Your task to perform on an android device: turn on notifications settings in the gmail app Image 0: 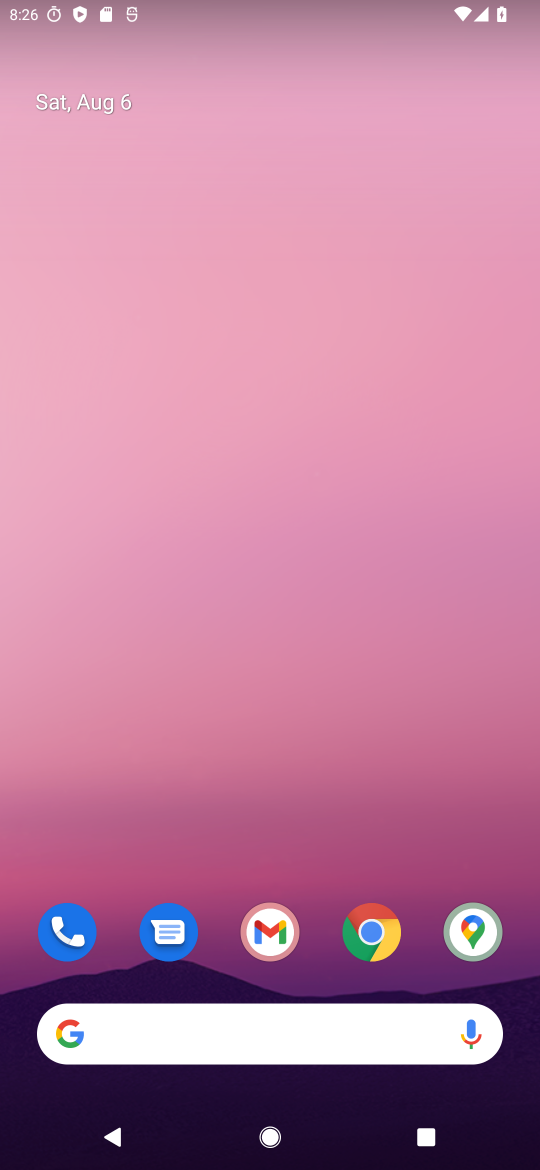
Step 0: press home button
Your task to perform on an android device: turn on notifications settings in the gmail app Image 1: 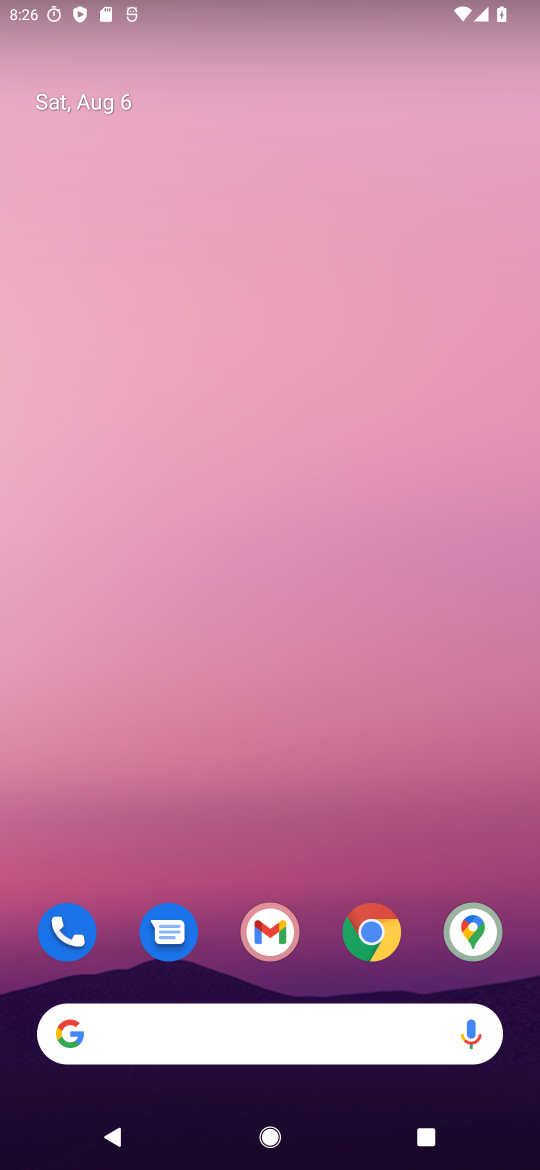
Step 1: click (266, 922)
Your task to perform on an android device: turn on notifications settings in the gmail app Image 2: 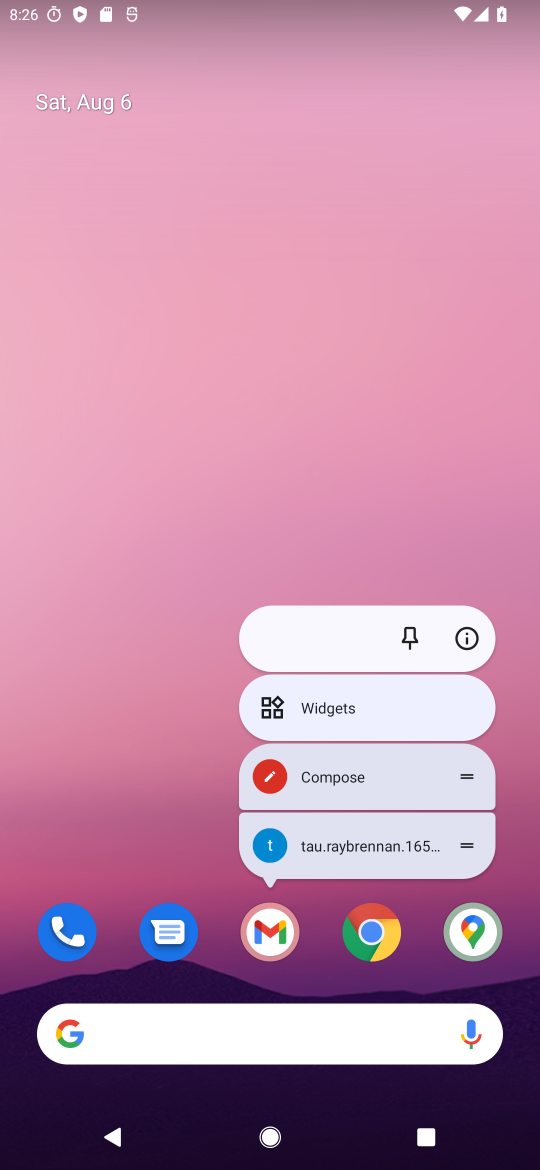
Step 2: click (279, 938)
Your task to perform on an android device: turn on notifications settings in the gmail app Image 3: 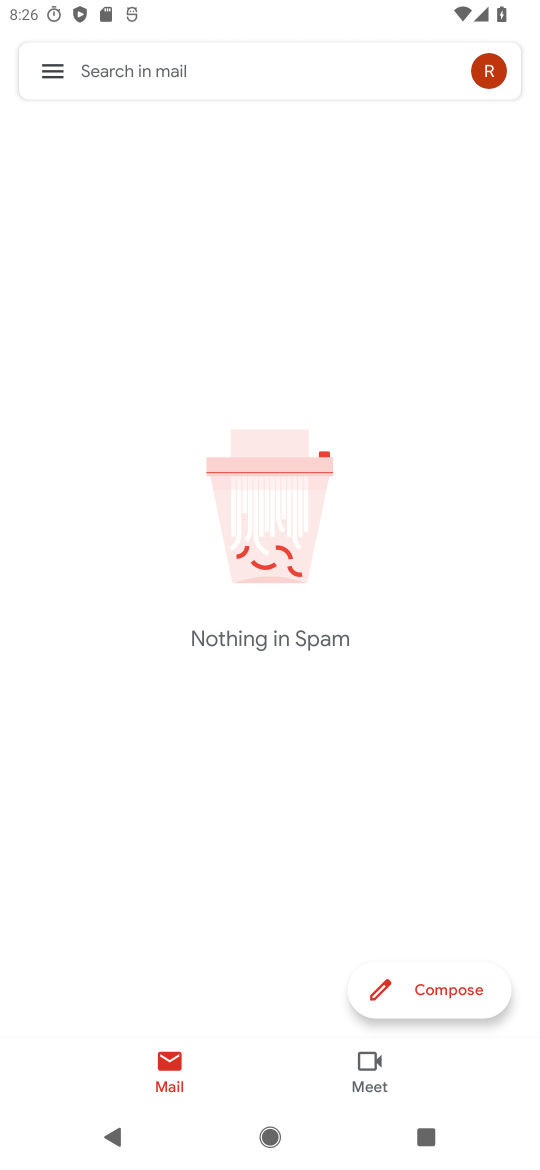
Step 3: click (51, 56)
Your task to perform on an android device: turn on notifications settings in the gmail app Image 4: 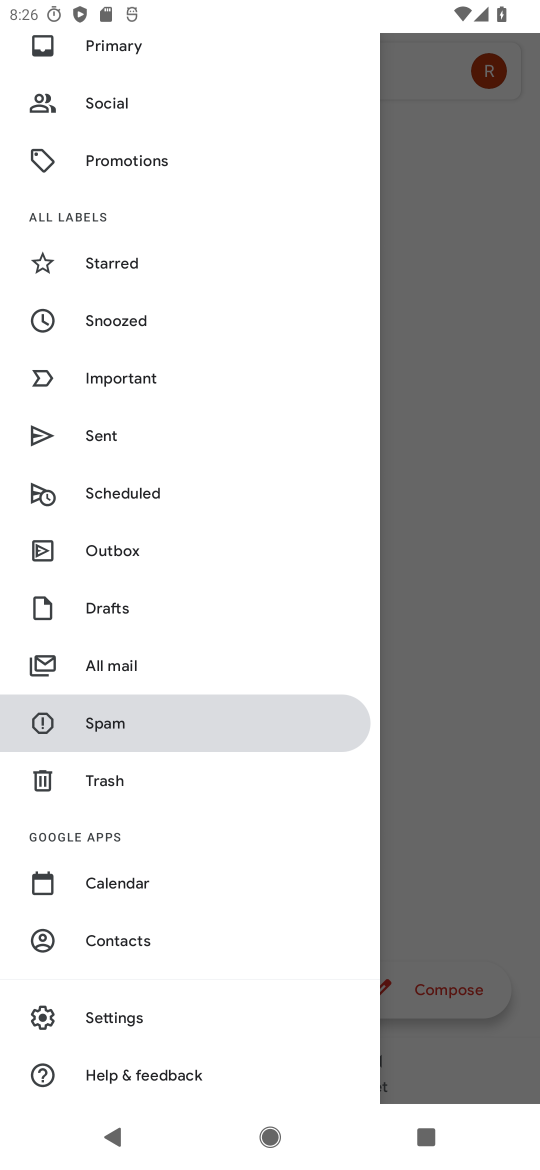
Step 4: drag from (215, 1014) to (354, 216)
Your task to perform on an android device: turn on notifications settings in the gmail app Image 5: 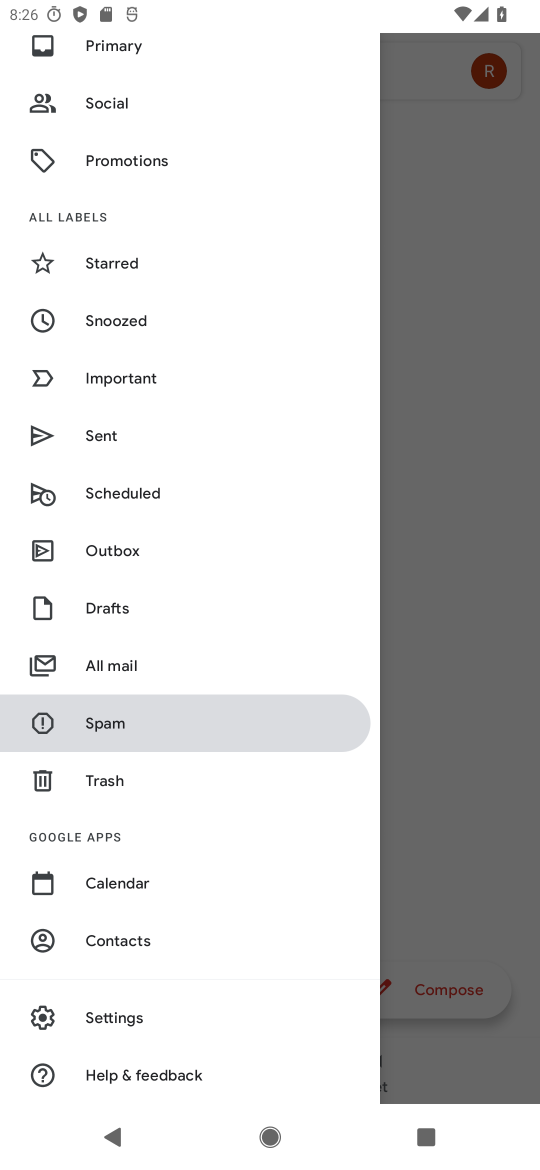
Step 5: click (126, 1018)
Your task to perform on an android device: turn on notifications settings in the gmail app Image 6: 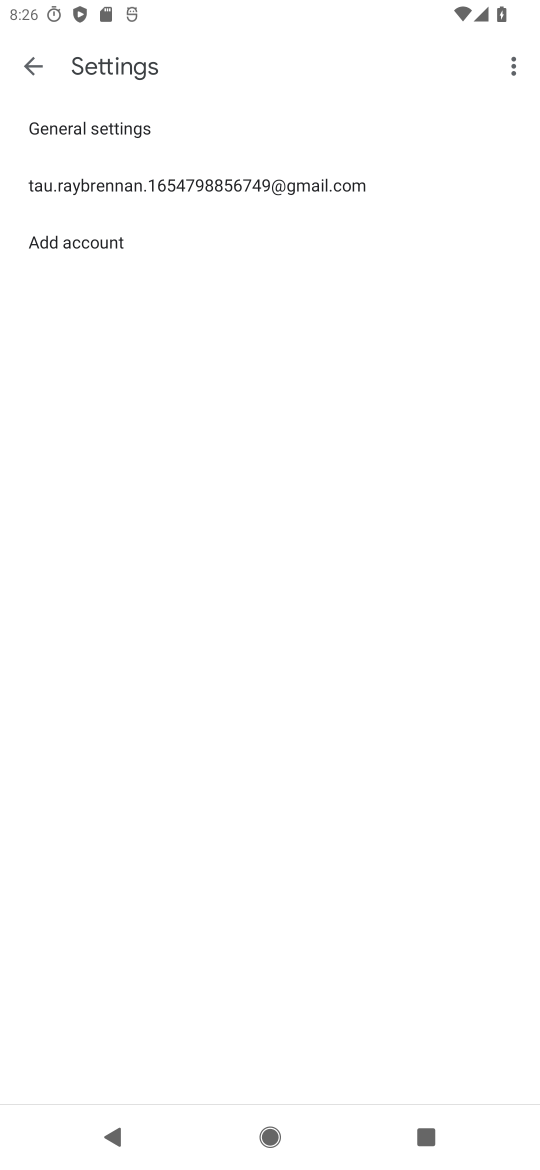
Step 6: click (340, 181)
Your task to perform on an android device: turn on notifications settings in the gmail app Image 7: 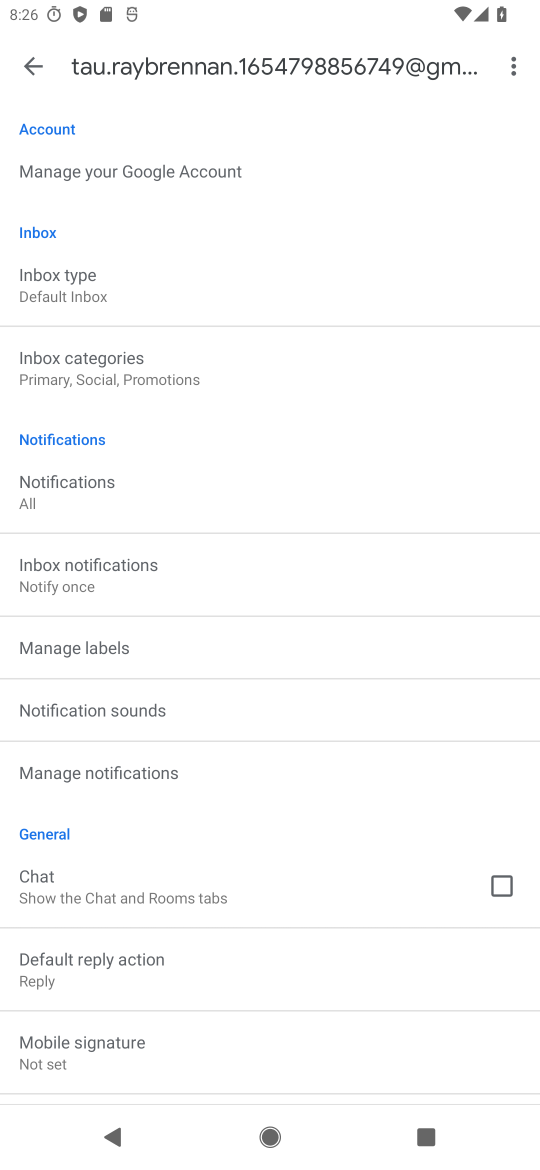
Step 7: click (108, 486)
Your task to perform on an android device: turn on notifications settings in the gmail app Image 8: 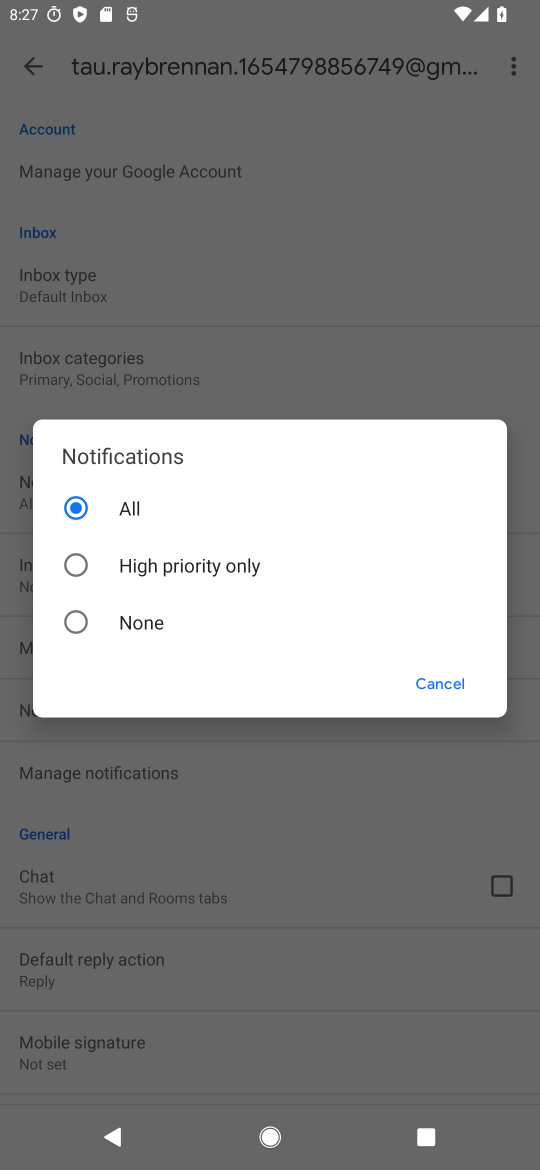
Step 8: task complete